Your task to perform on an android device: Open location settings Image 0: 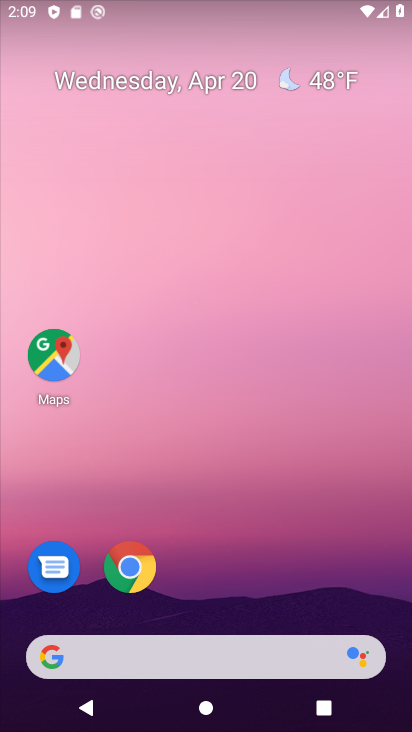
Step 0: drag from (240, 573) to (235, 105)
Your task to perform on an android device: Open location settings Image 1: 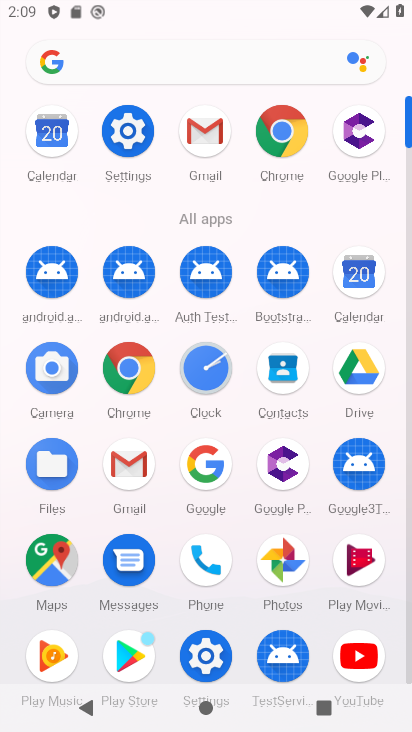
Step 1: click (130, 126)
Your task to perform on an android device: Open location settings Image 2: 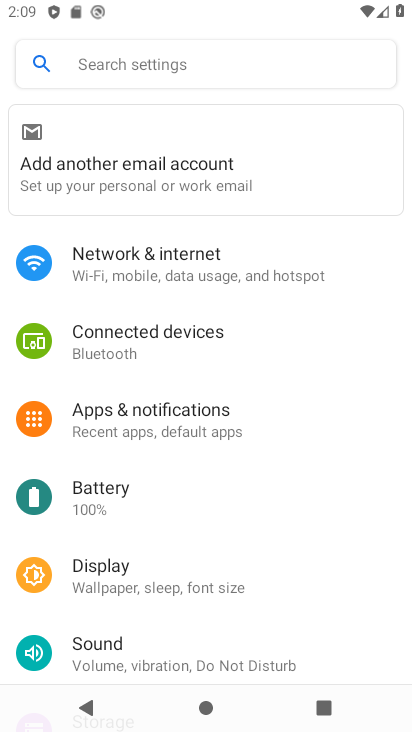
Step 2: drag from (287, 610) to (298, 338)
Your task to perform on an android device: Open location settings Image 3: 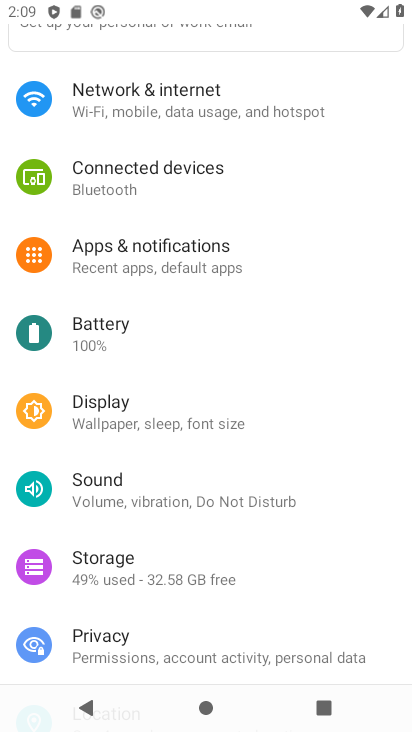
Step 3: drag from (217, 618) to (292, 284)
Your task to perform on an android device: Open location settings Image 4: 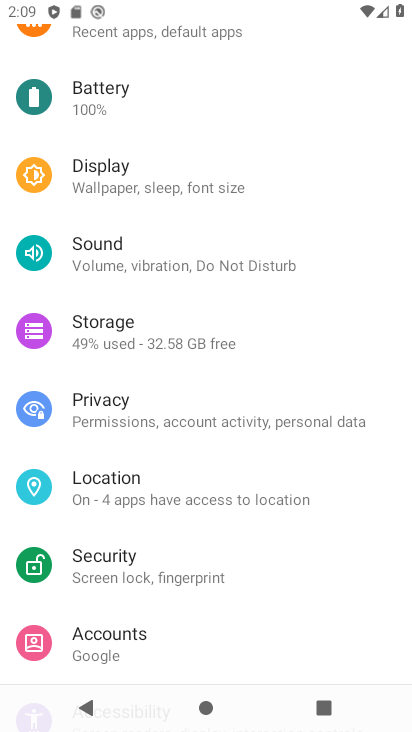
Step 4: click (177, 495)
Your task to perform on an android device: Open location settings Image 5: 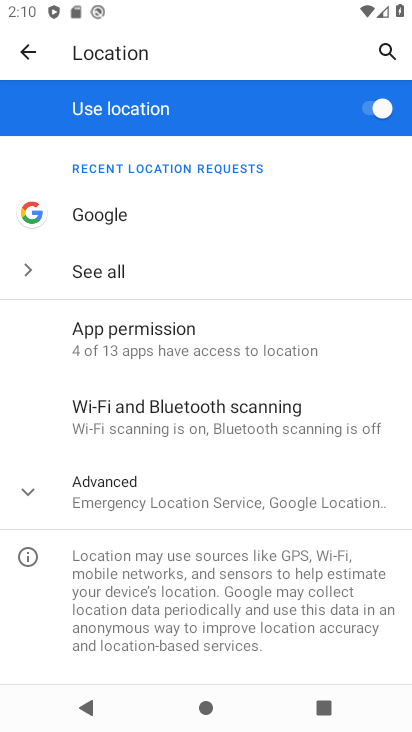
Step 5: task complete